Your task to perform on an android device: open the mobile data screen to see how much data has been used Image 0: 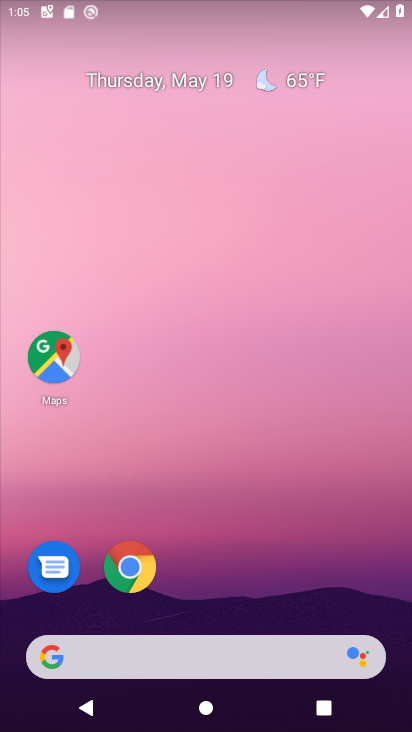
Step 0: drag from (274, 508) to (60, 2)
Your task to perform on an android device: open the mobile data screen to see how much data has been used Image 1: 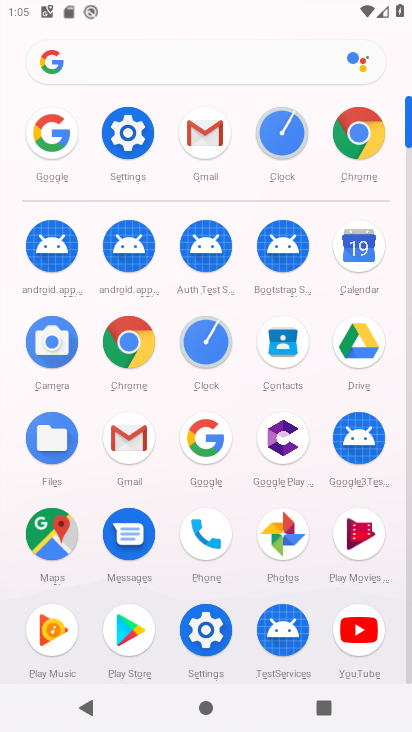
Step 1: click (123, 136)
Your task to perform on an android device: open the mobile data screen to see how much data has been used Image 2: 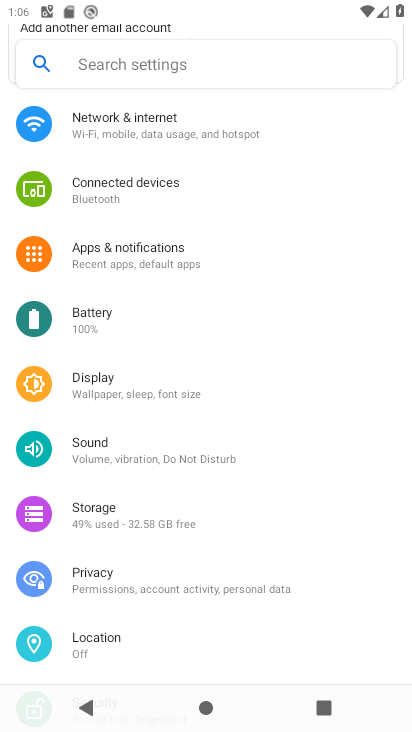
Step 2: click (272, 127)
Your task to perform on an android device: open the mobile data screen to see how much data has been used Image 3: 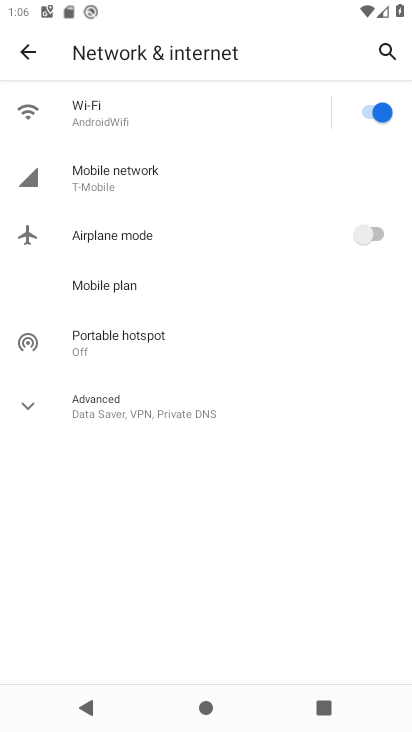
Step 3: click (94, 191)
Your task to perform on an android device: open the mobile data screen to see how much data has been used Image 4: 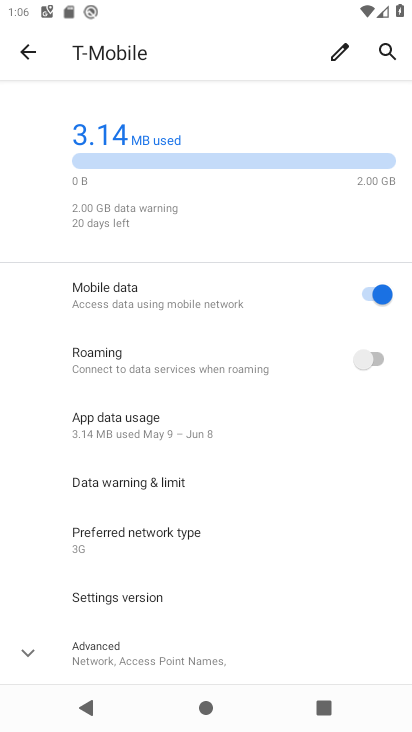
Step 4: task complete